Your task to perform on an android device: change notifications settings Image 0: 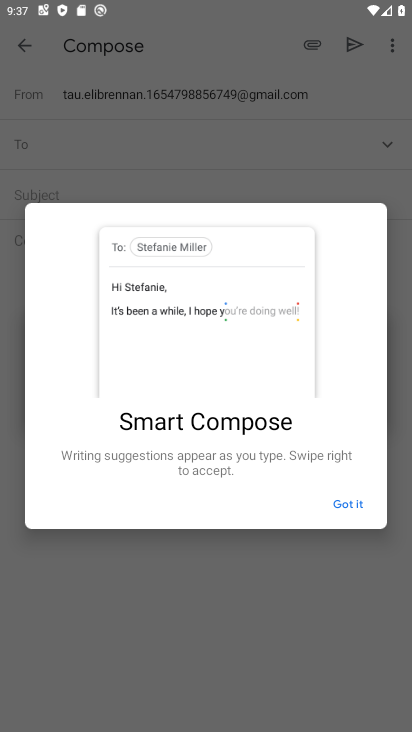
Step 0: press home button
Your task to perform on an android device: change notifications settings Image 1: 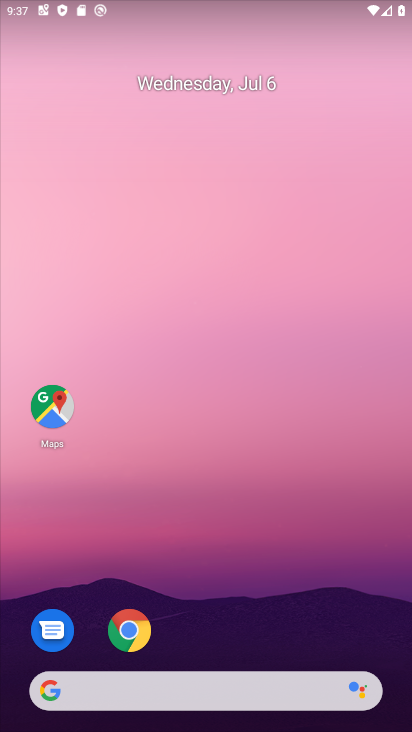
Step 1: drag from (353, 635) to (296, 133)
Your task to perform on an android device: change notifications settings Image 2: 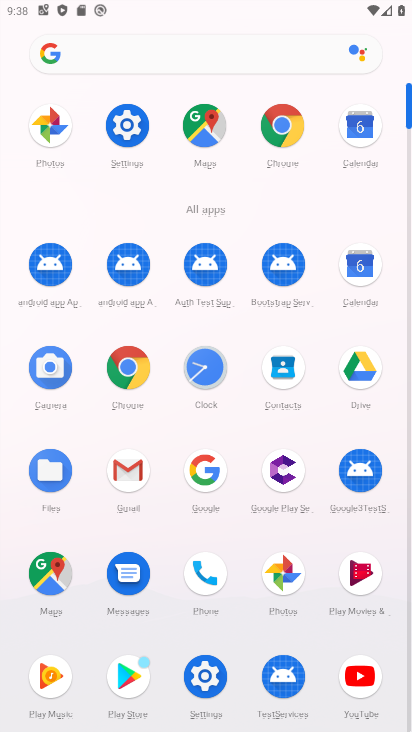
Step 2: click (204, 676)
Your task to perform on an android device: change notifications settings Image 3: 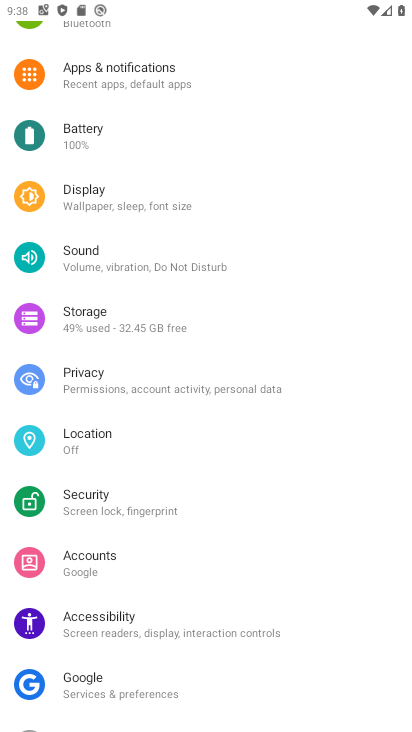
Step 3: click (107, 76)
Your task to perform on an android device: change notifications settings Image 4: 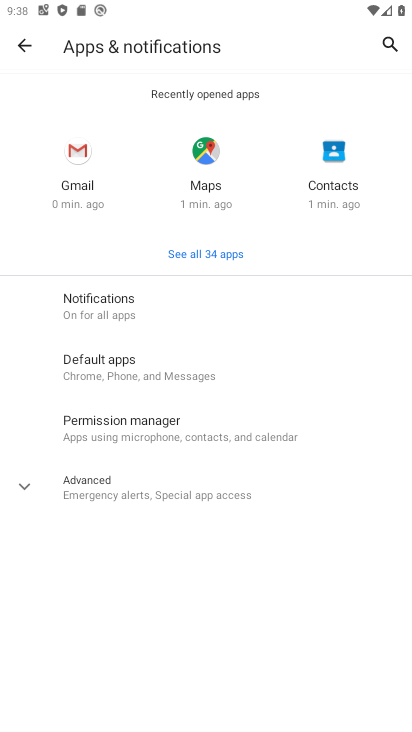
Step 4: click (82, 306)
Your task to perform on an android device: change notifications settings Image 5: 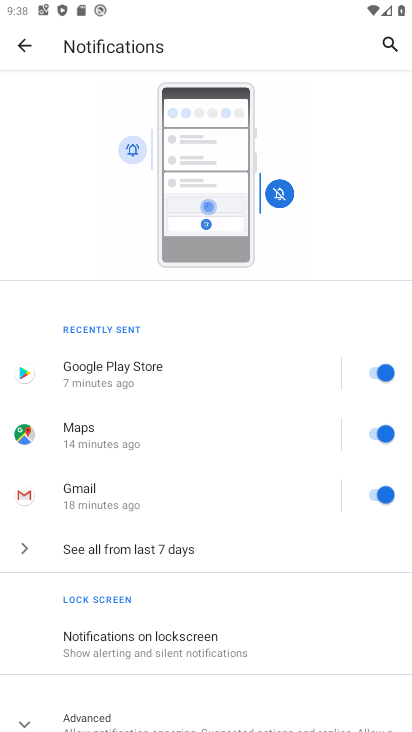
Step 5: drag from (302, 620) to (317, 274)
Your task to perform on an android device: change notifications settings Image 6: 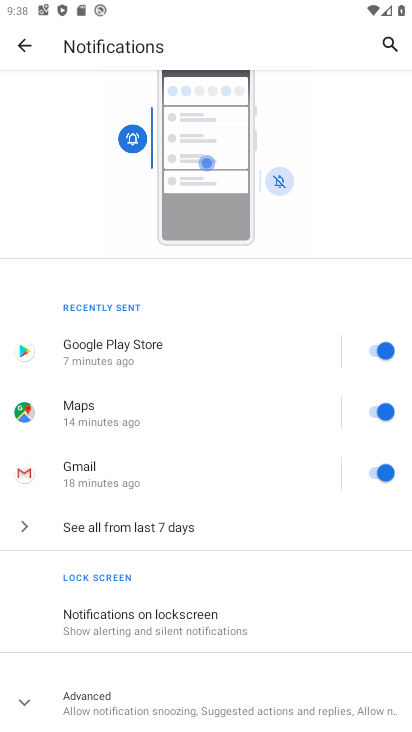
Step 6: click (23, 703)
Your task to perform on an android device: change notifications settings Image 7: 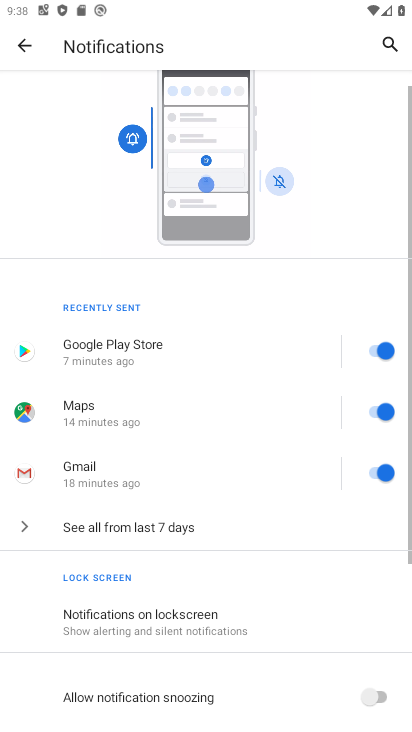
Step 7: drag from (288, 692) to (274, 338)
Your task to perform on an android device: change notifications settings Image 8: 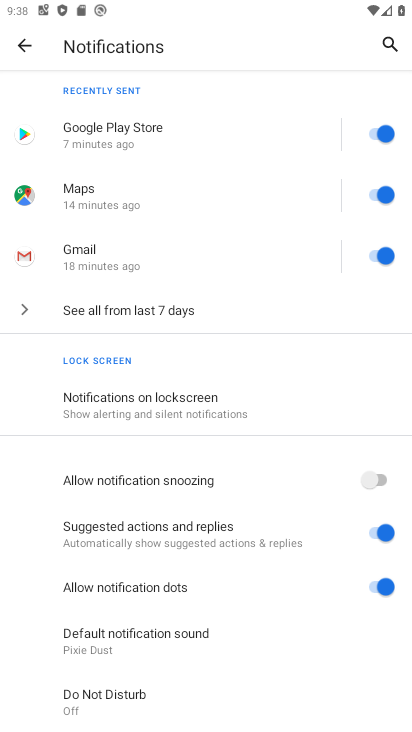
Step 8: click (369, 586)
Your task to perform on an android device: change notifications settings Image 9: 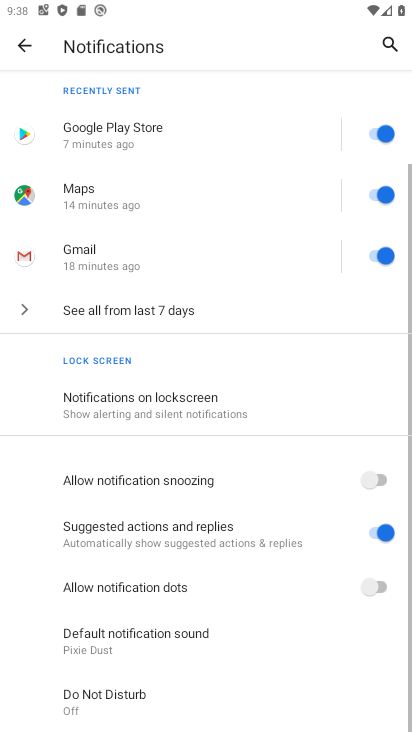
Step 9: click (380, 480)
Your task to perform on an android device: change notifications settings Image 10: 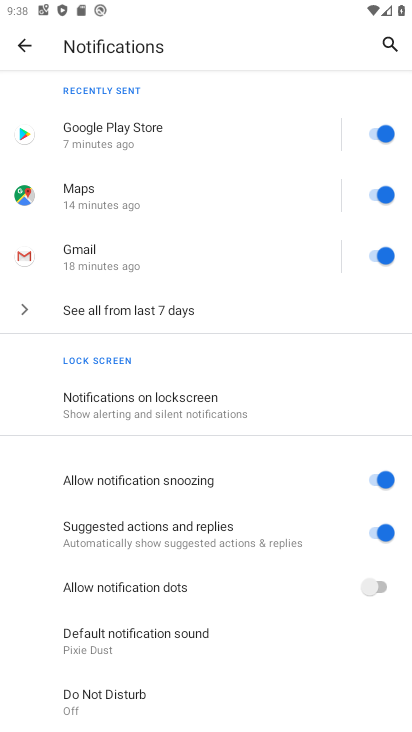
Step 10: task complete